Your task to perform on an android device: Open Google Image 0: 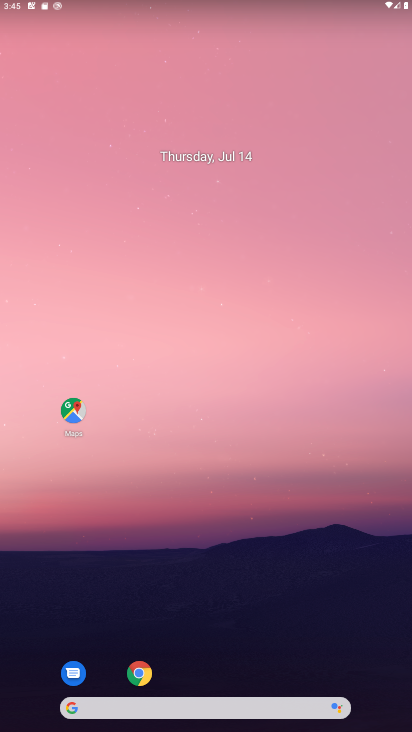
Step 0: drag from (204, 681) to (227, 134)
Your task to perform on an android device: Open Google Image 1: 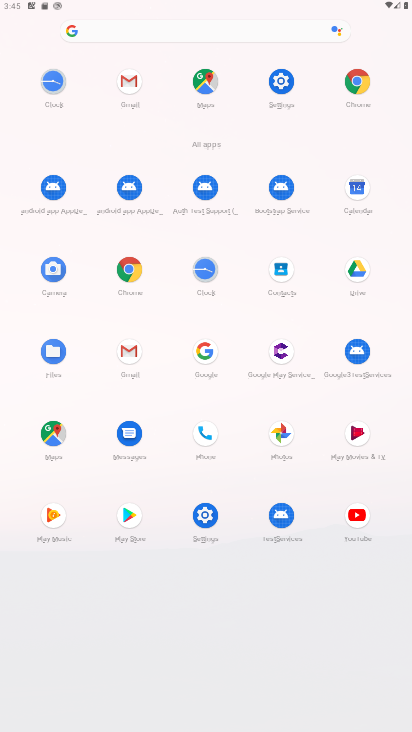
Step 1: click (210, 341)
Your task to perform on an android device: Open Google Image 2: 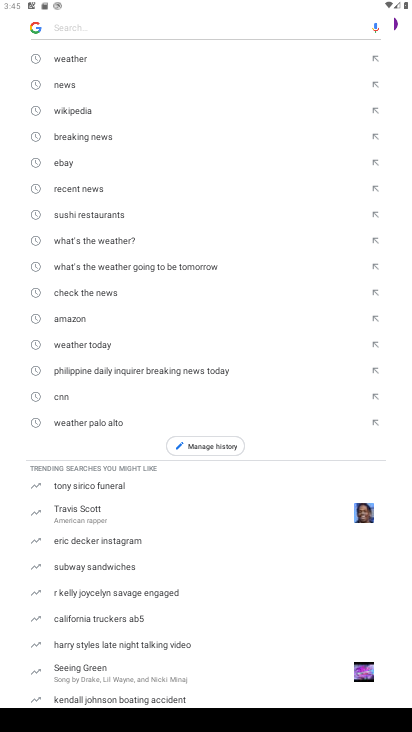
Step 2: press home button
Your task to perform on an android device: Open Google Image 3: 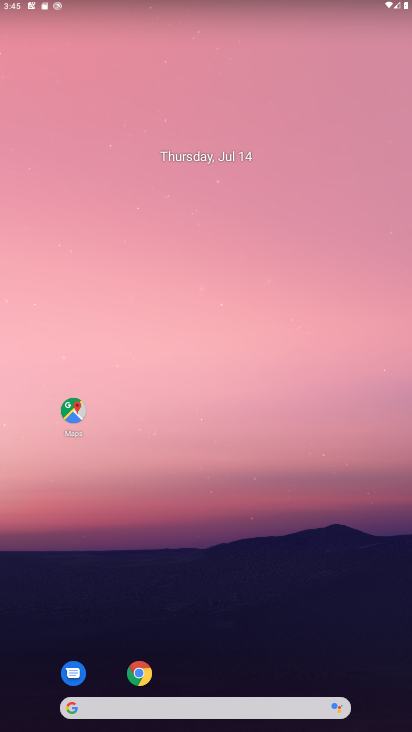
Step 3: drag from (229, 671) to (291, 157)
Your task to perform on an android device: Open Google Image 4: 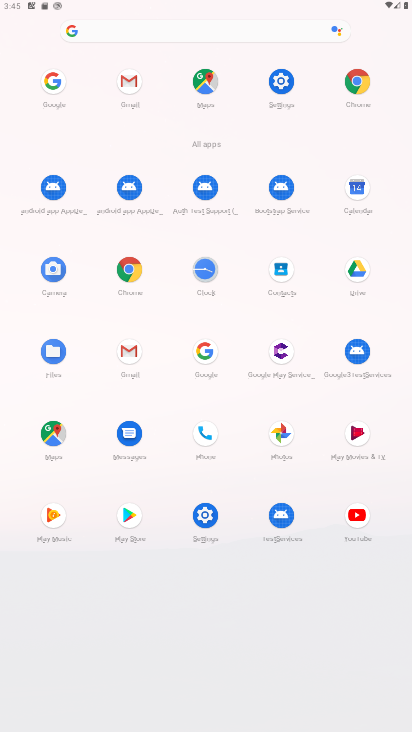
Step 4: drag from (233, 623) to (265, 487)
Your task to perform on an android device: Open Google Image 5: 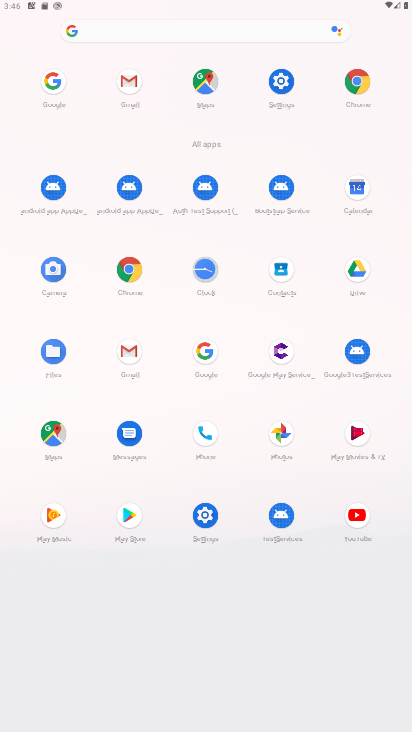
Step 5: click (205, 348)
Your task to perform on an android device: Open Google Image 6: 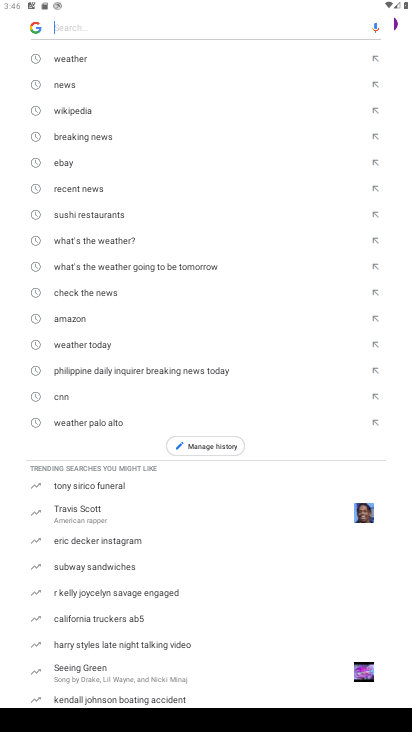
Step 6: task complete